Your task to perform on an android device: Go to battery settings Image 0: 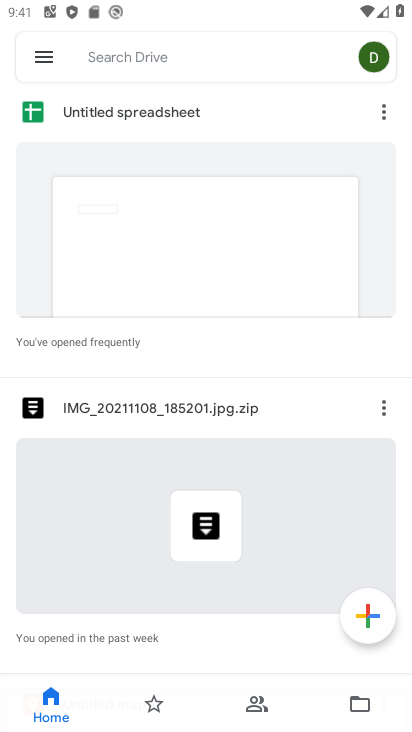
Step 0: press home button
Your task to perform on an android device: Go to battery settings Image 1: 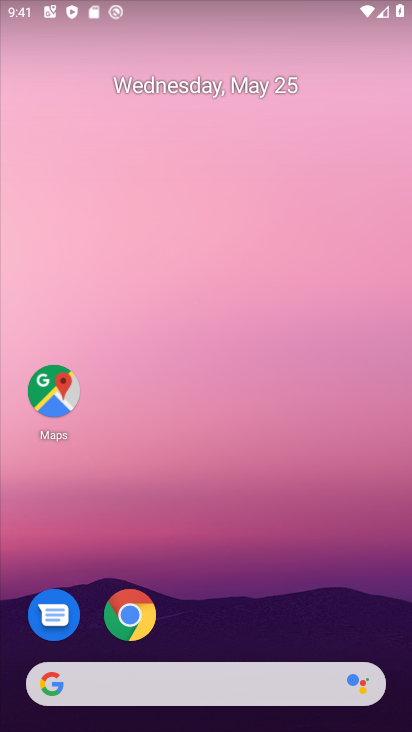
Step 1: drag from (198, 484) to (268, 35)
Your task to perform on an android device: Go to battery settings Image 2: 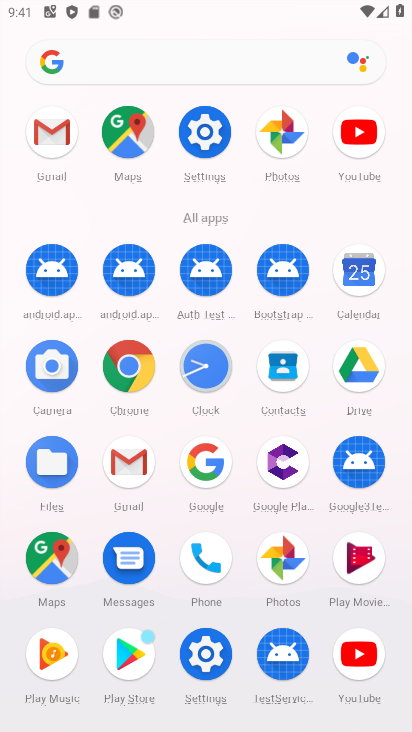
Step 2: click (213, 124)
Your task to perform on an android device: Go to battery settings Image 3: 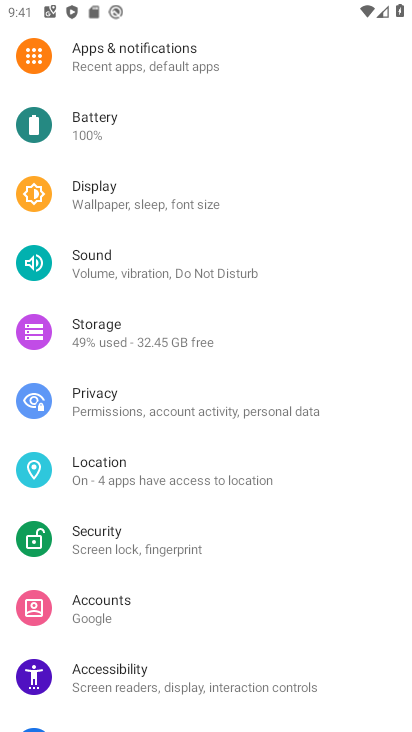
Step 3: click (168, 133)
Your task to perform on an android device: Go to battery settings Image 4: 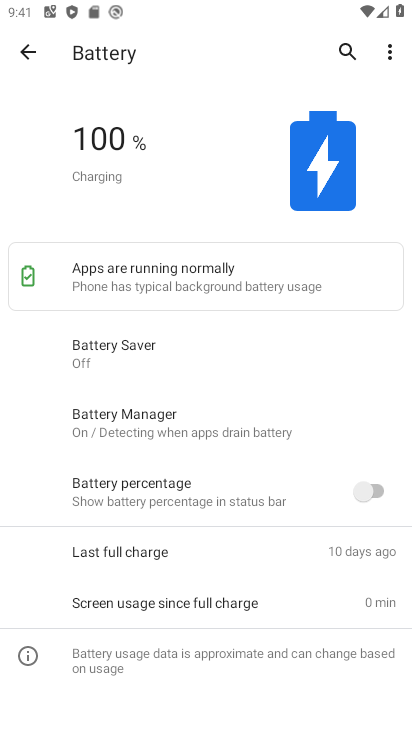
Step 4: task complete